Your task to perform on an android device: turn off sleep mode Image 0: 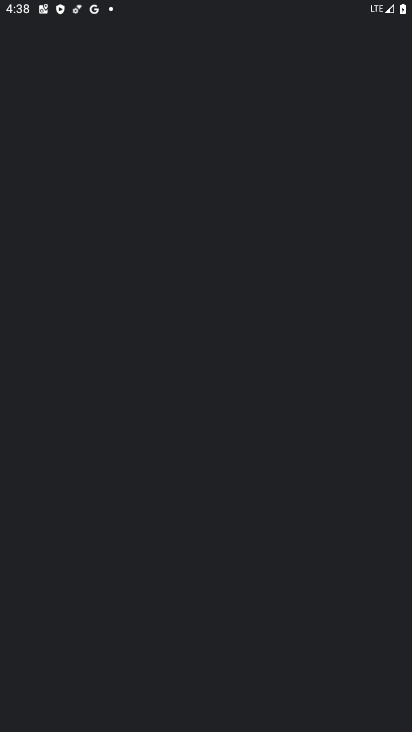
Step 0: press home button
Your task to perform on an android device: turn off sleep mode Image 1: 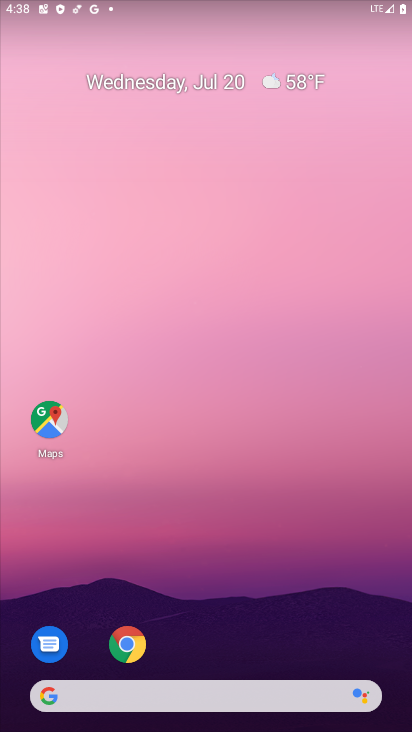
Step 1: drag from (236, 648) to (219, 37)
Your task to perform on an android device: turn off sleep mode Image 2: 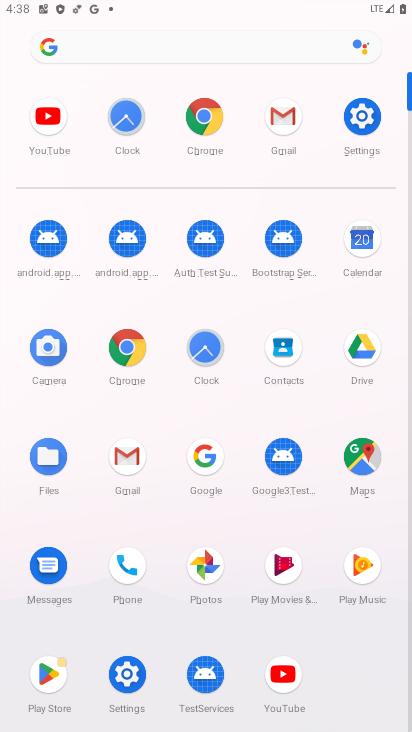
Step 2: click (354, 119)
Your task to perform on an android device: turn off sleep mode Image 3: 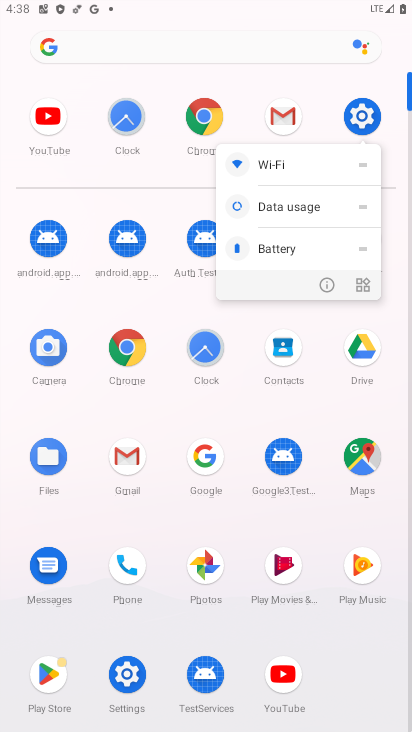
Step 3: click (354, 118)
Your task to perform on an android device: turn off sleep mode Image 4: 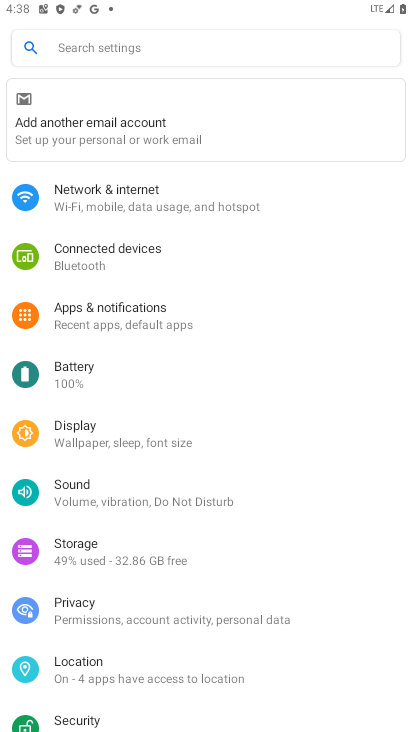
Step 4: click (75, 438)
Your task to perform on an android device: turn off sleep mode Image 5: 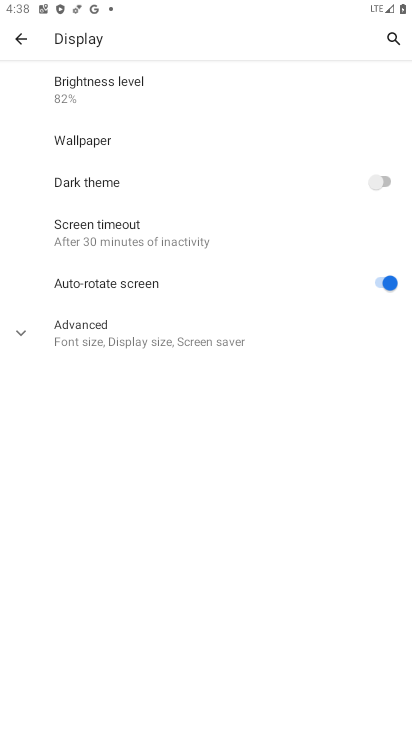
Step 5: task complete